Your task to perform on an android device: change keyboard looks Image 0: 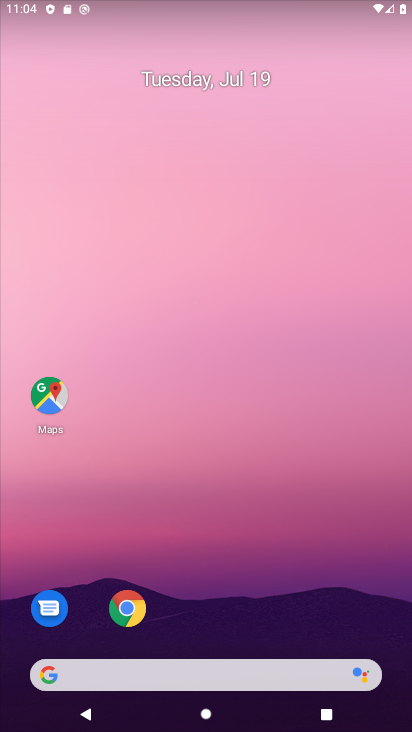
Step 0: press home button
Your task to perform on an android device: change keyboard looks Image 1: 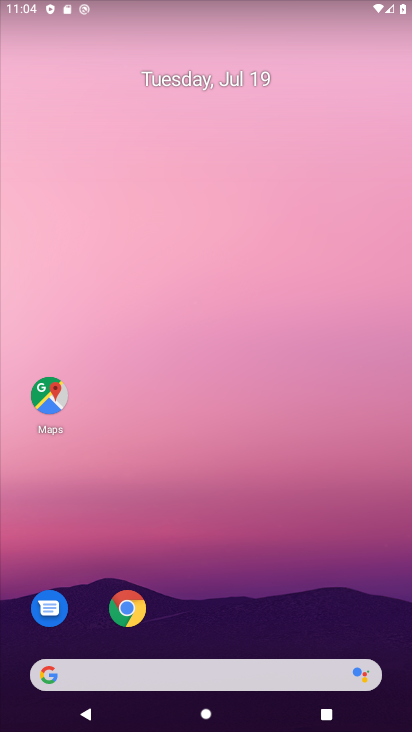
Step 1: drag from (285, 630) to (184, 99)
Your task to perform on an android device: change keyboard looks Image 2: 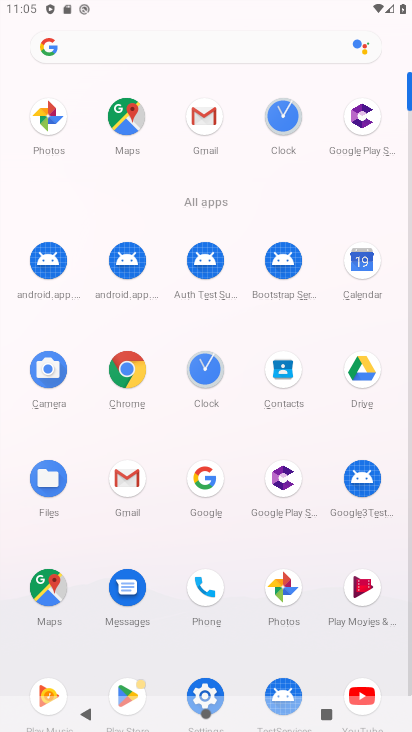
Step 2: click (196, 693)
Your task to perform on an android device: change keyboard looks Image 3: 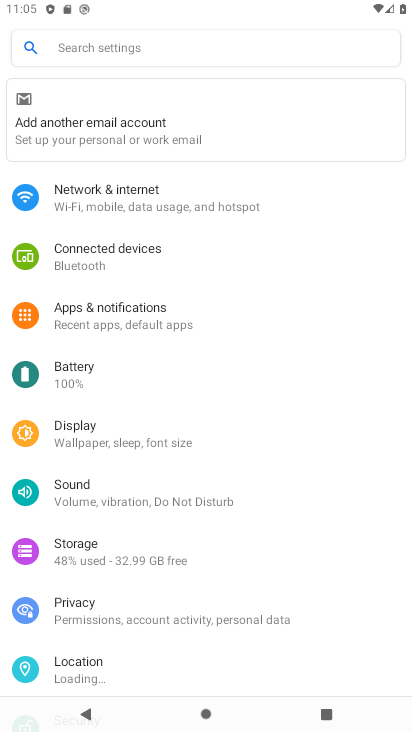
Step 3: drag from (157, 671) to (156, 173)
Your task to perform on an android device: change keyboard looks Image 4: 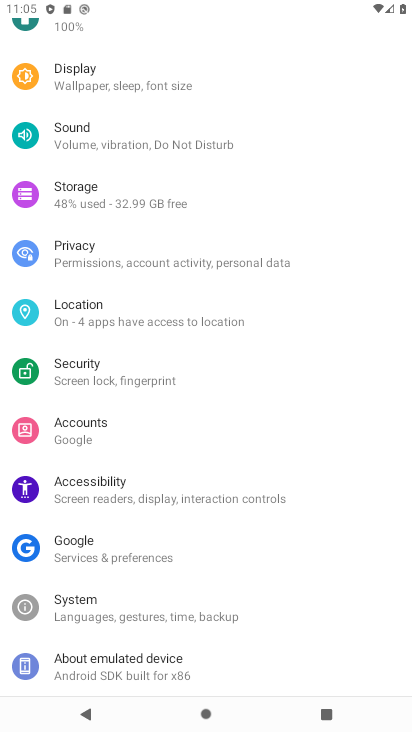
Step 4: click (95, 612)
Your task to perform on an android device: change keyboard looks Image 5: 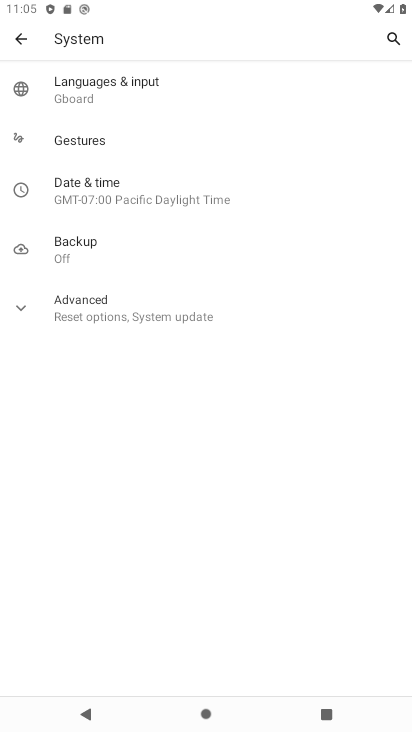
Step 5: click (102, 89)
Your task to perform on an android device: change keyboard looks Image 6: 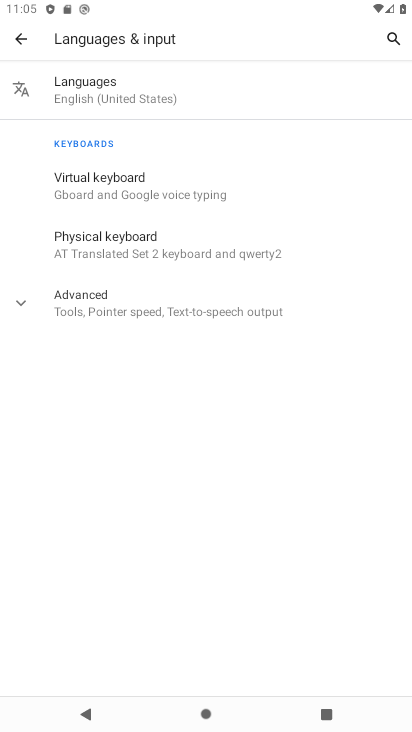
Step 6: click (114, 185)
Your task to perform on an android device: change keyboard looks Image 7: 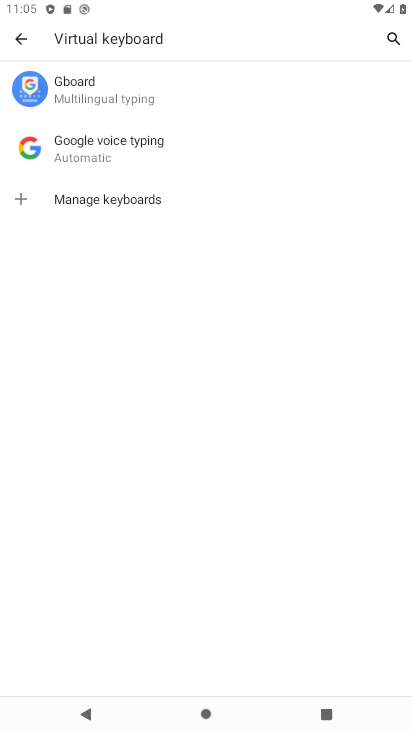
Step 7: click (71, 83)
Your task to perform on an android device: change keyboard looks Image 8: 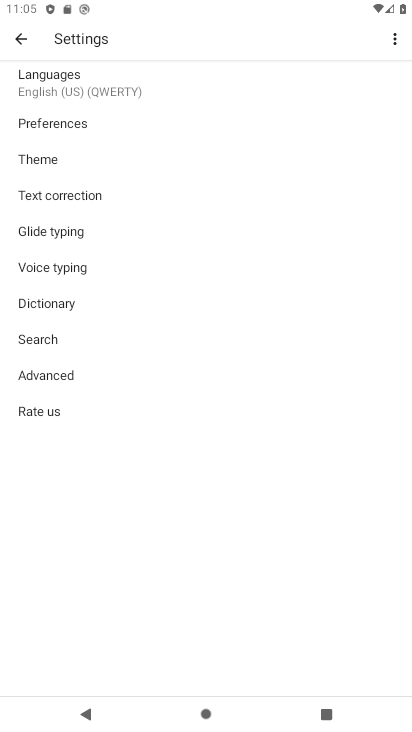
Step 8: click (36, 153)
Your task to perform on an android device: change keyboard looks Image 9: 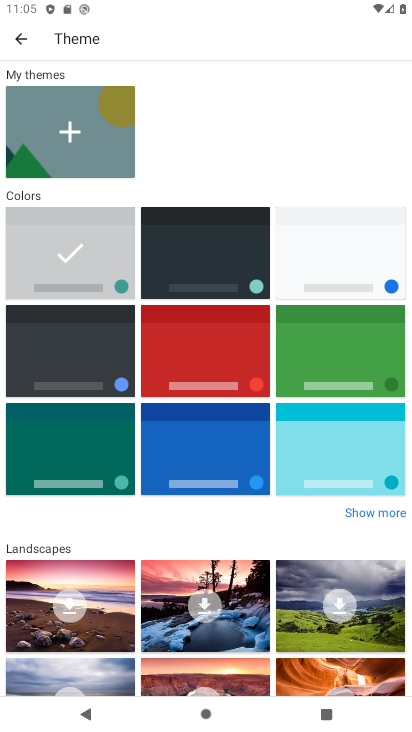
Step 9: click (179, 462)
Your task to perform on an android device: change keyboard looks Image 10: 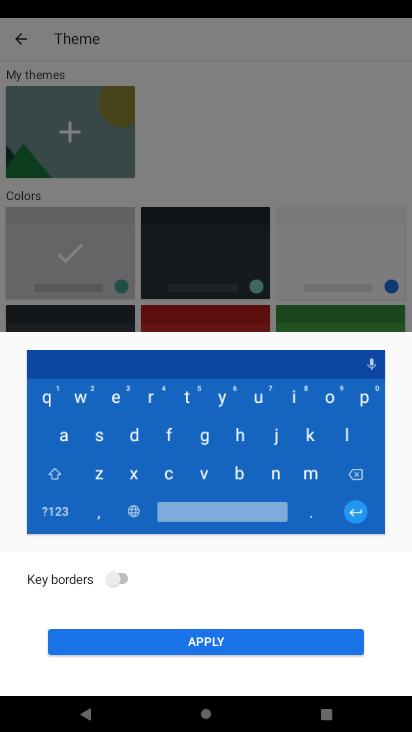
Step 10: click (218, 644)
Your task to perform on an android device: change keyboard looks Image 11: 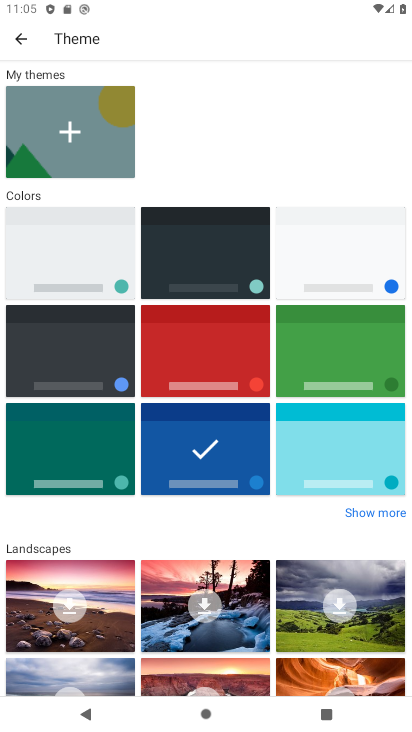
Step 11: task complete